Your task to perform on an android device: Go to battery settings Image 0: 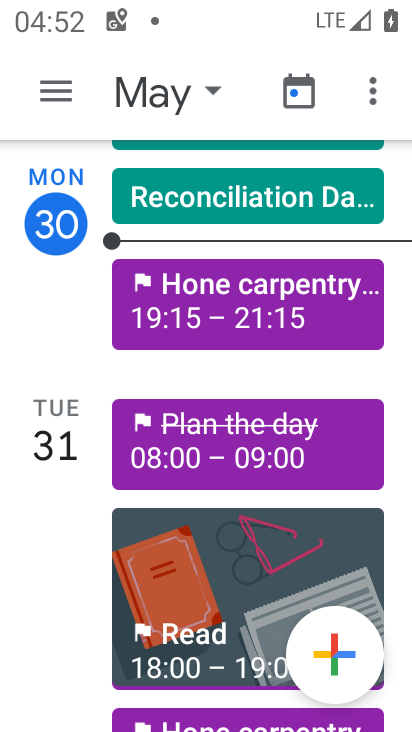
Step 0: press home button
Your task to perform on an android device: Go to battery settings Image 1: 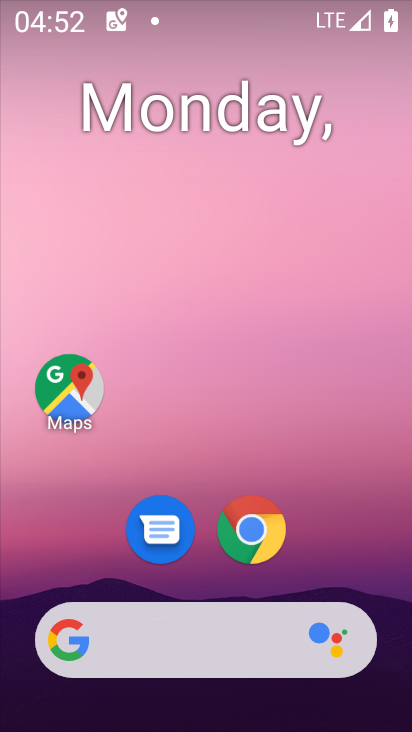
Step 1: drag from (390, 604) to (269, 137)
Your task to perform on an android device: Go to battery settings Image 2: 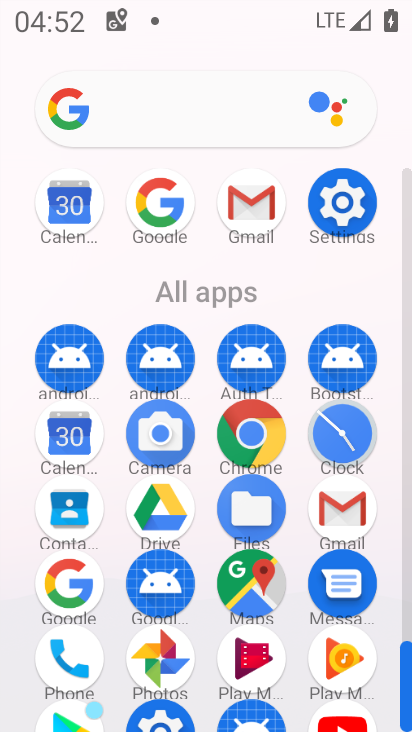
Step 2: click (343, 219)
Your task to perform on an android device: Go to battery settings Image 3: 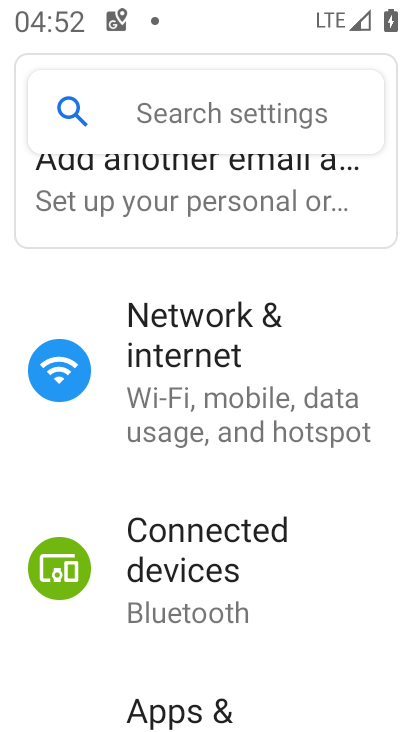
Step 3: drag from (293, 642) to (234, 279)
Your task to perform on an android device: Go to battery settings Image 4: 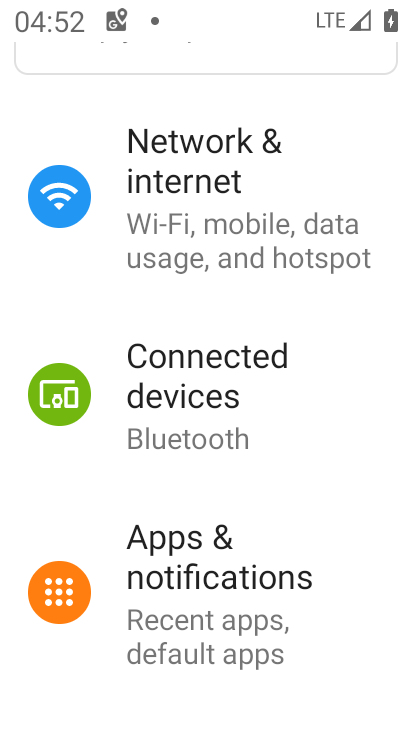
Step 4: drag from (254, 657) to (190, 195)
Your task to perform on an android device: Go to battery settings Image 5: 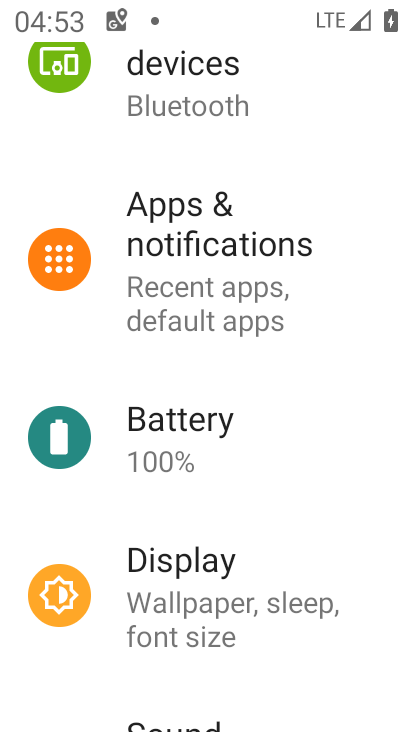
Step 5: click (226, 484)
Your task to perform on an android device: Go to battery settings Image 6: 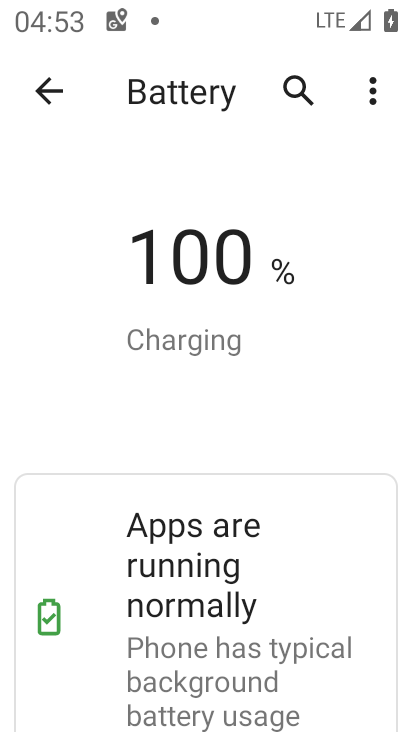
Step 6: task complete